Your task to perform on an android device: turn on showing notifications on the lock screen Image 0: 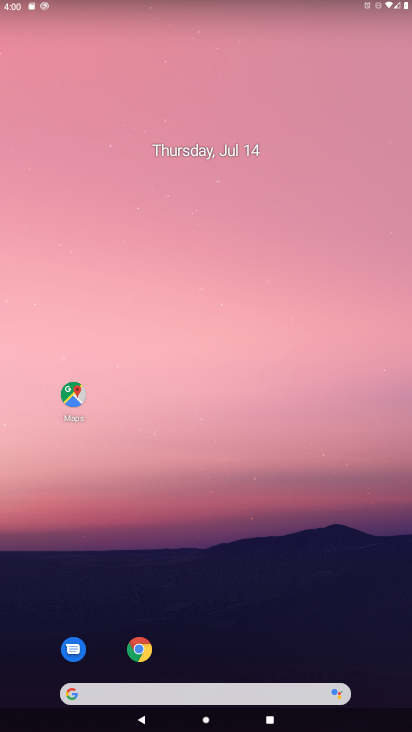
Step 0: drag from (243, 606) to (329, 0)
Your task to perform on an android device: turn on showing notifications on the lock screen Image 1: 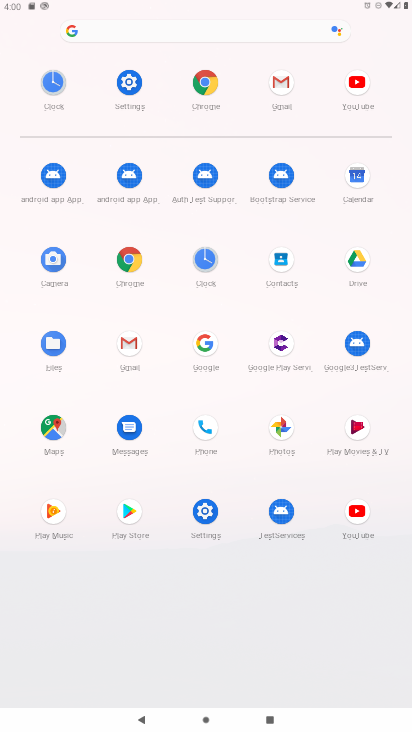
Step 1: click (215, 508)
Your task to perform on an android device: turn on showing notifications on the lock screen Image 2: 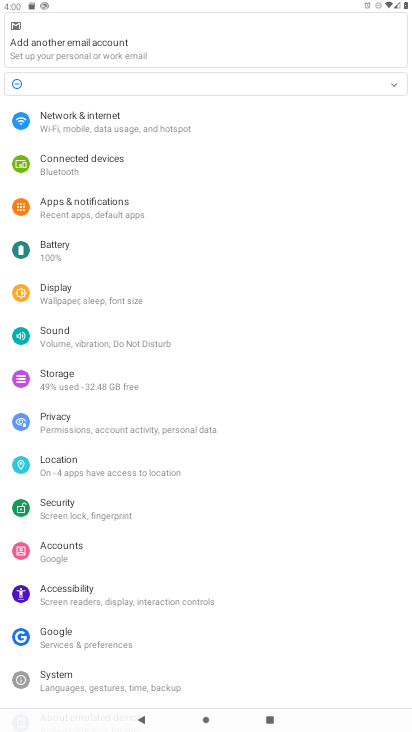
Step 2: click (111, 206)
Your task to perform on an android device: turn on showing notifications on the lock screen Image 3: 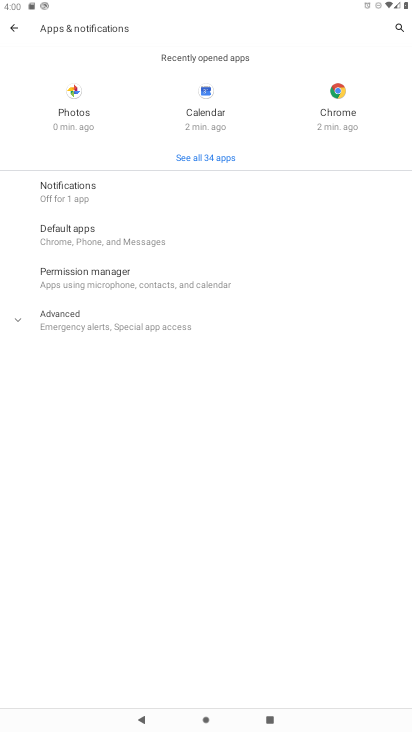
Step 3: click (80, 325)
Your task to perform on an android device: turn on showing notifications on the lock screen Image 4: 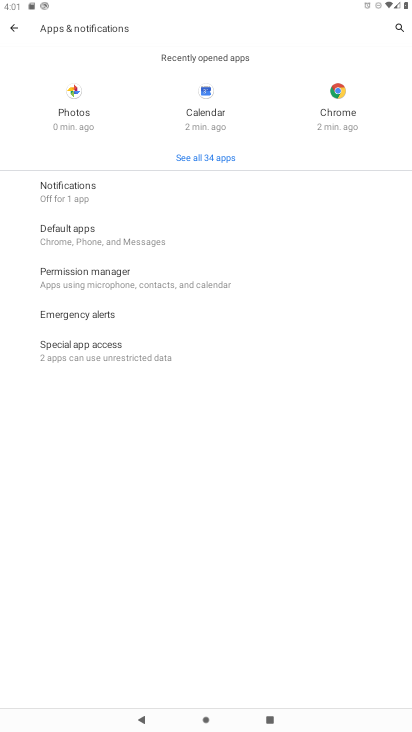
Step 4: click (91, 191)
Your task to perform on an android device: turn on showing notifications on the lock screen Image 5: 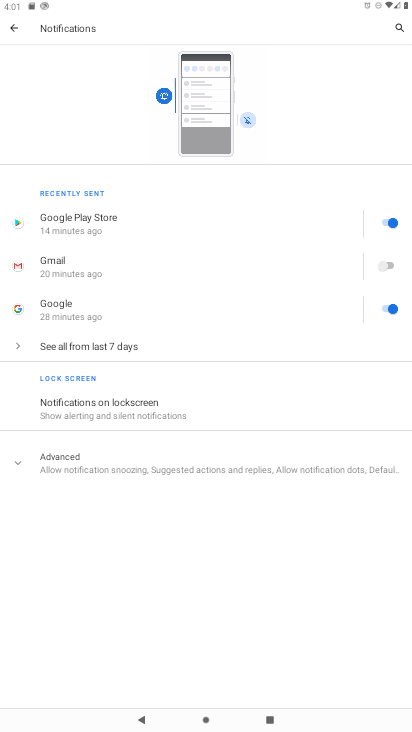
Step 5: click (117, 407)
Your task to perform on an android device: turn on showing notifications on the lock screen Image 6: 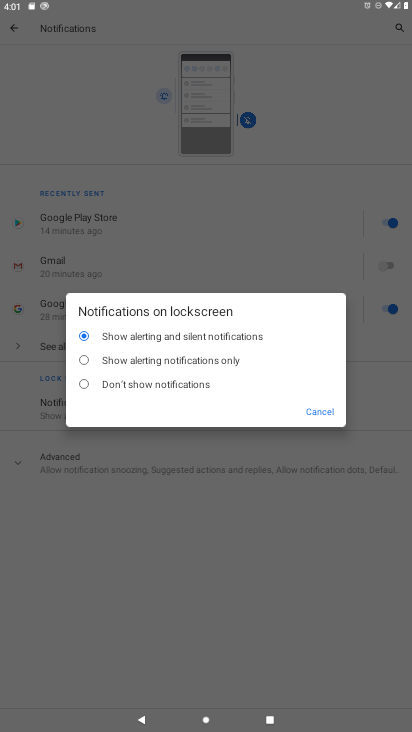
Step 6: task complete